Your task to perform on an android device: change notification settings in the gmail app Image 0: 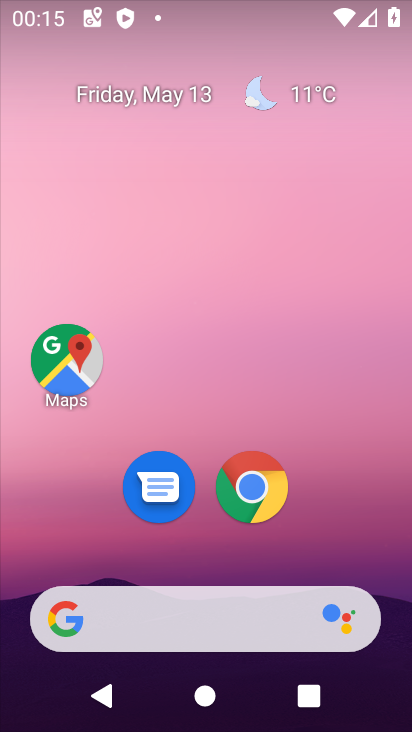
Step 0: drag from (198, 551) to (306, 124)
Your task to perform on an android device: change notification settings in the gmail app Image 1: 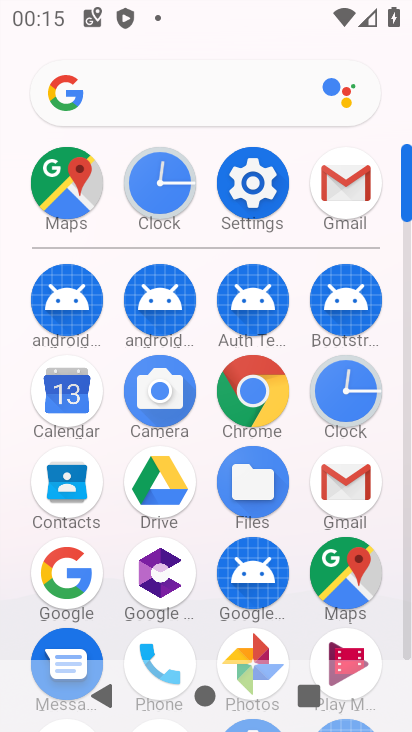
Step 1: click (339, 166)
Your task to perform on an android device: change notification settings in the gmail app Image 2: 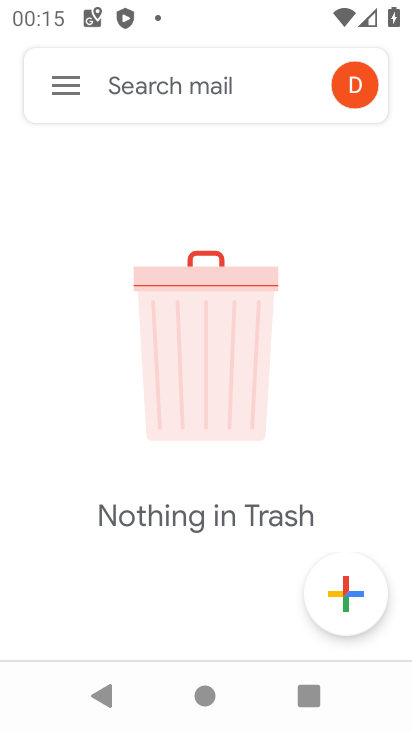
Step 2: click (80, 97)
Your task to perform on an android device: change notification settings in the gmail app Image 3: 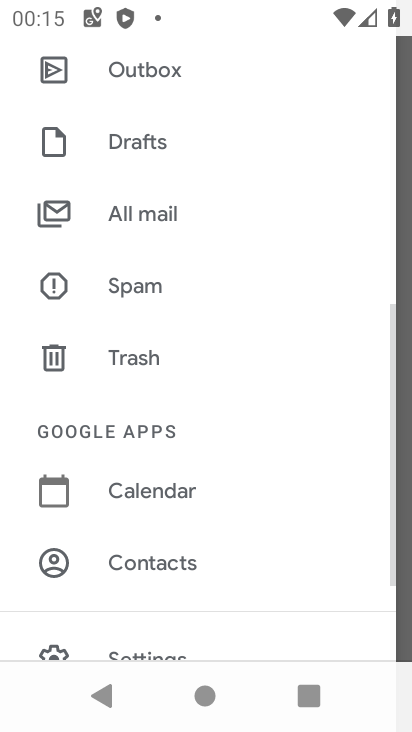
Step 3: drag from (210, 579) to (281, 250)
Your task to perform on an android device: change notification settings in the gmail app Image 4: 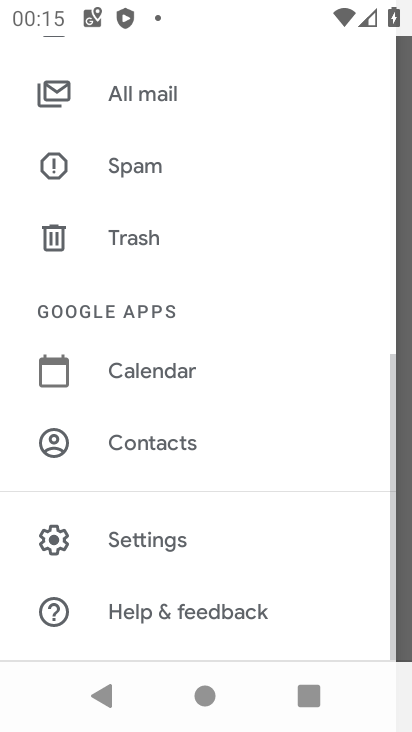
Step 4: click (176, 551)
Your task to perform on an android device: change notification settings in the gmail app Image 5: 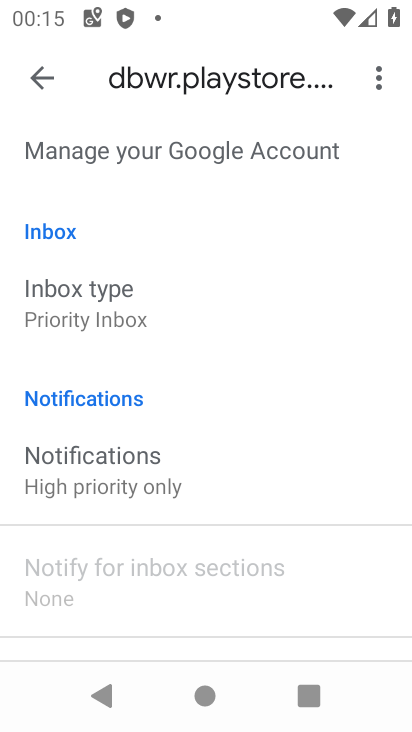
Step 5: click (199, 491)
Your task to perform on an android device: change notification settings in the gmail app Image 6: 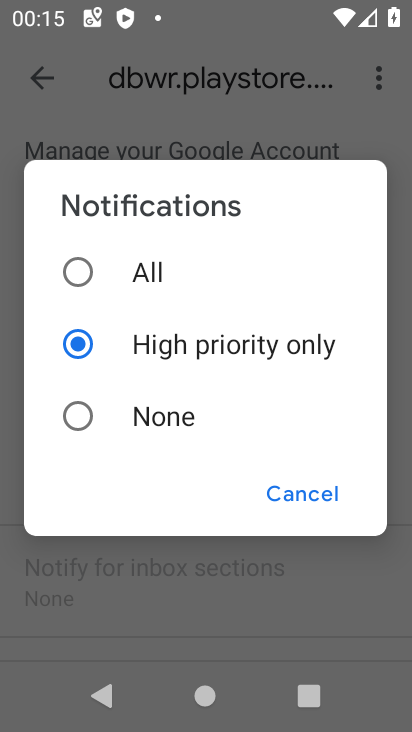
Step 6: click (190, 416)
Your task to perform on an android device: change notification settings in the gmail app Image 7: 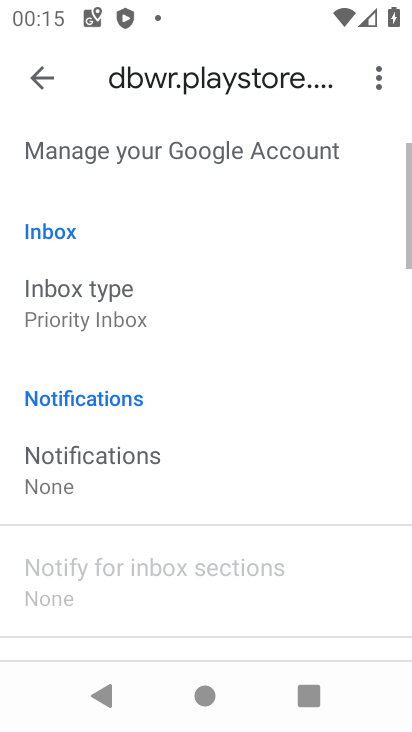
Step 7: task complete